Your task to perform on an android device: Open accessibility settings Image 0: 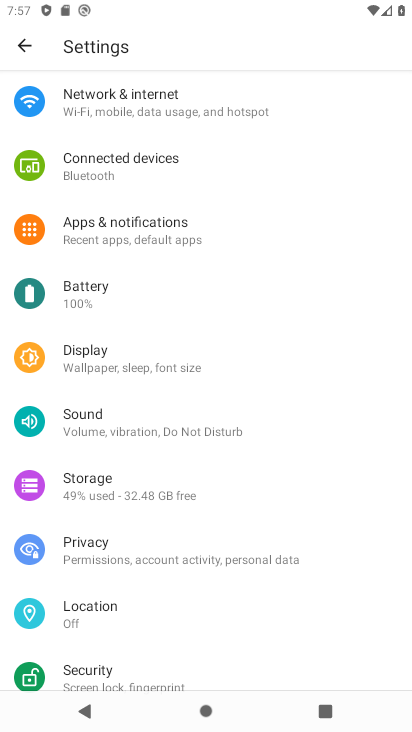
Step 0: drag from (243, 473) to (259, 81)
Your task to perform on an android device: Open accessibility settings Image 1: 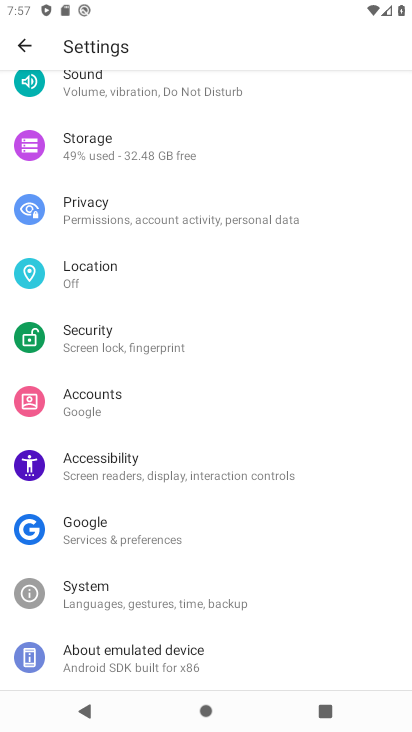
Step 1: click (141, 464)
Your task to perform on an android device: Open accessibility settings Image 2: 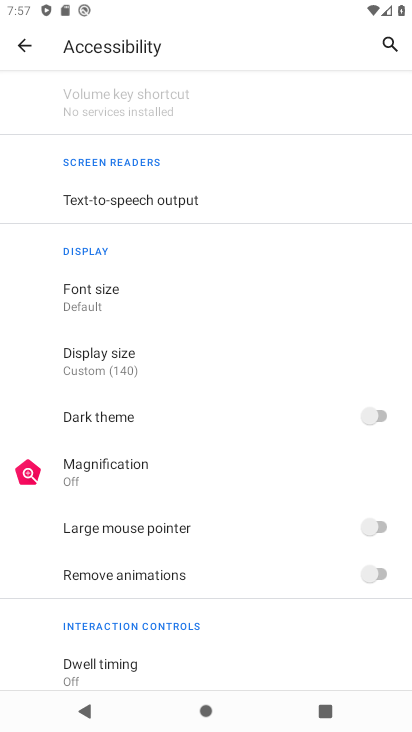
Step 2: task complete